Your task to perform on an android device: turn off notifications settings in the gmail app Image 0: 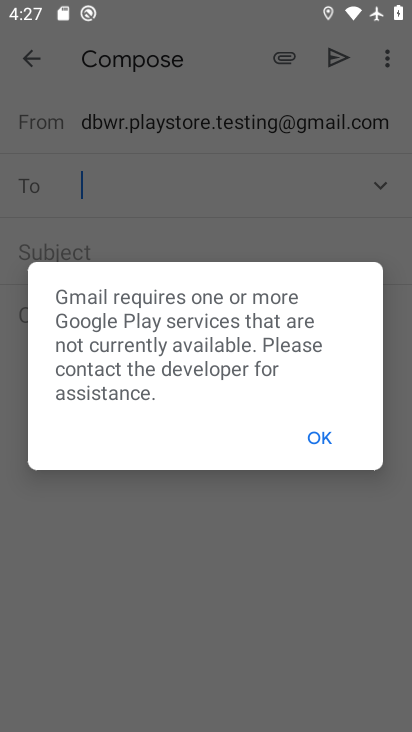
Step 0: click (318, 426)
Your task to perform on an android device: turn off notifications settings in the gmail app Image 1: 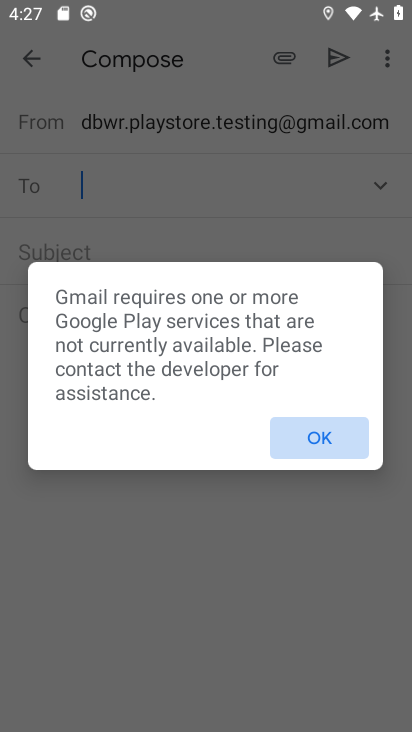
Step 1: click (317, 427)
Your task to perform on an android device: turn off notifications settings in the gmail app Image 2: 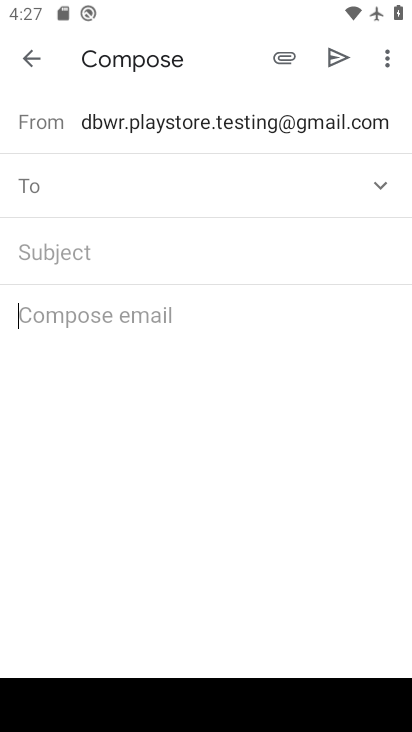
Step 2: click (23, 58)
Your task to perform on an android device: turn off notifications settings in the gmail app Image 3: 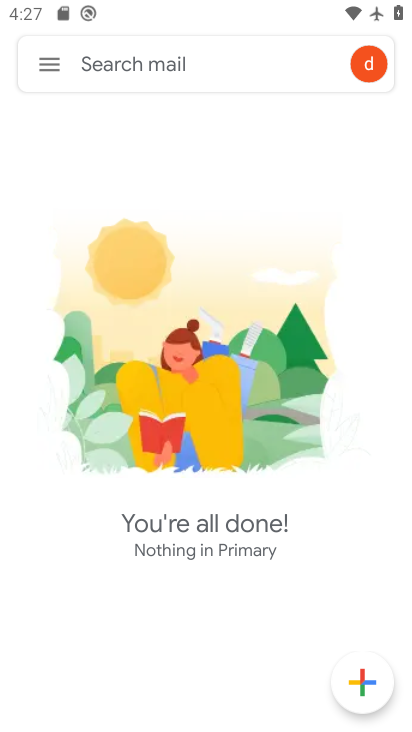
Step 3: click (46, 62)
Your task to perform on an android device: turn off notifications settings in the gmail app Image 4: 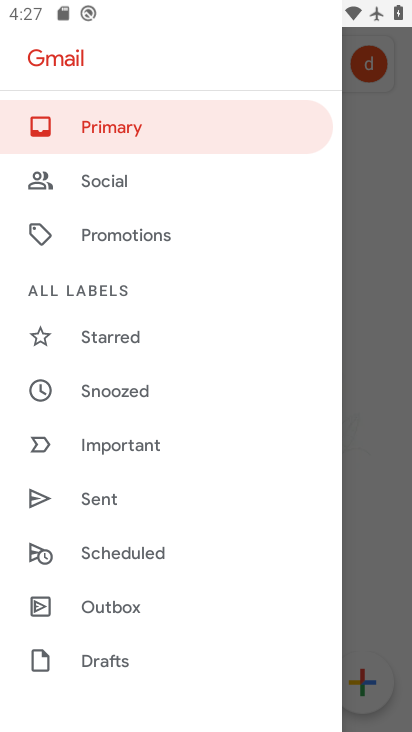
Step 4: drag from (154, 575) to (108, 236)
Your task to perform on an android device: turn off notifications settings in the gmail app Image 5: 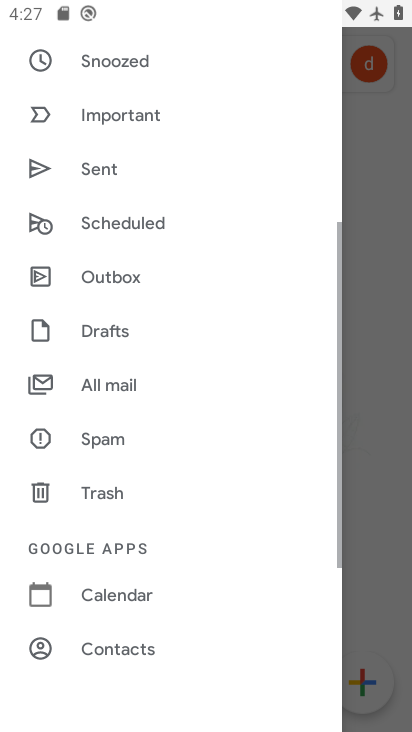
Step 5: drag from (148, 494) to (125, 231)
Your task to perform on an android device: turn off notifications settings in the gmail app Image 6: 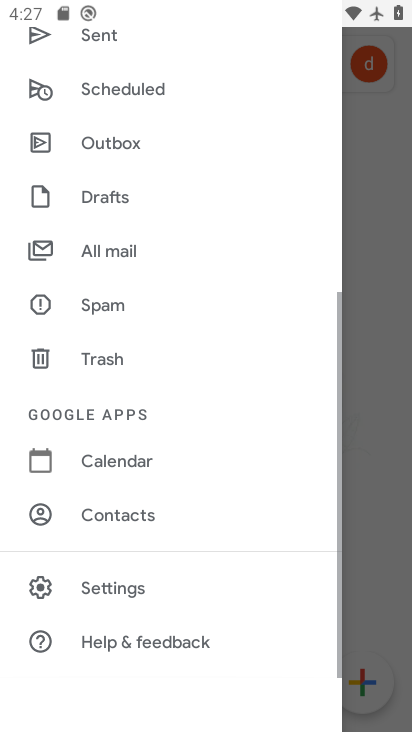
Step 6: drag from (145, 576) to (106, 169)
Your task to perform on an android device: turn off notifications settings in the gmail app Image 7: 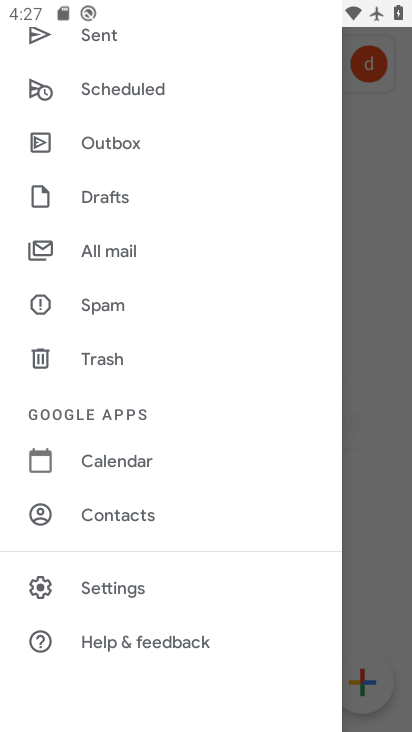
Step 7: click (95, 581)
Your task to perform on an android device: turn off notifications settings in the gmail app Image 8: 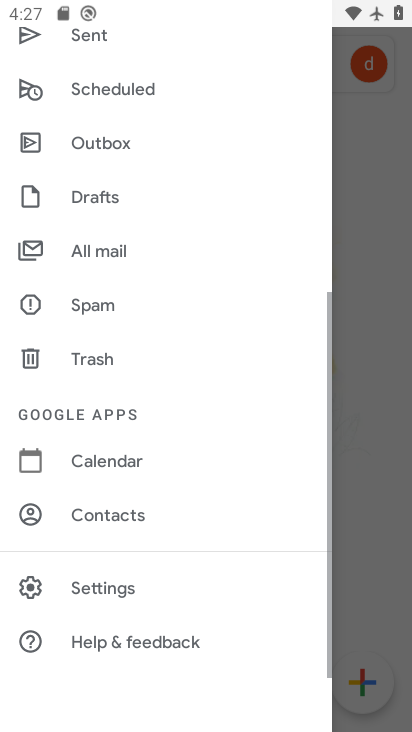
Step 8: click (95, 581)
Your task to perform on an android device: turn off notifications settings in the gmail app Image 9: 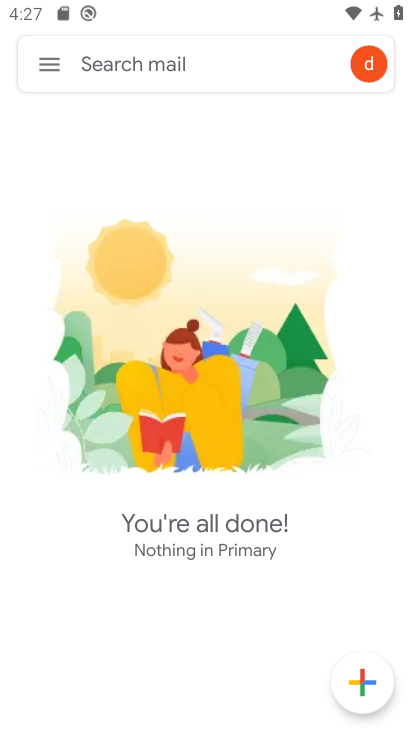
Step 9: click (97, 582)
Your task to perform on an android device: turn off notifications settings in the gmail app Image 10: 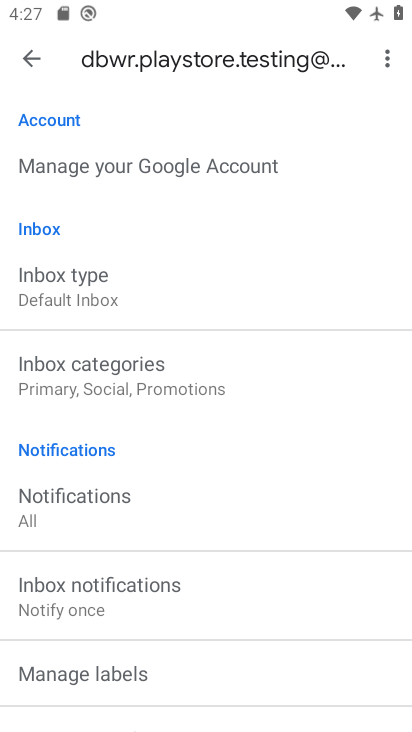
Step 10: click (44, 493)
Your task to perform on an android device: turn off notifications settings in the gmail app Image 11: 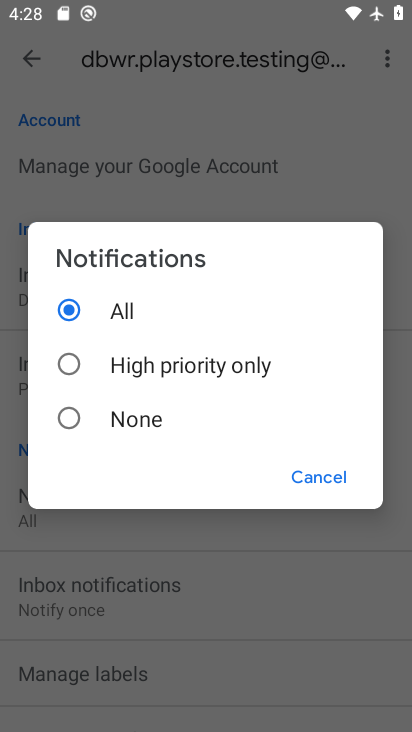
Step 11: click (310, 478)
Your task to perform on an android device: turn off notifications settings in the gmail app Image 12: 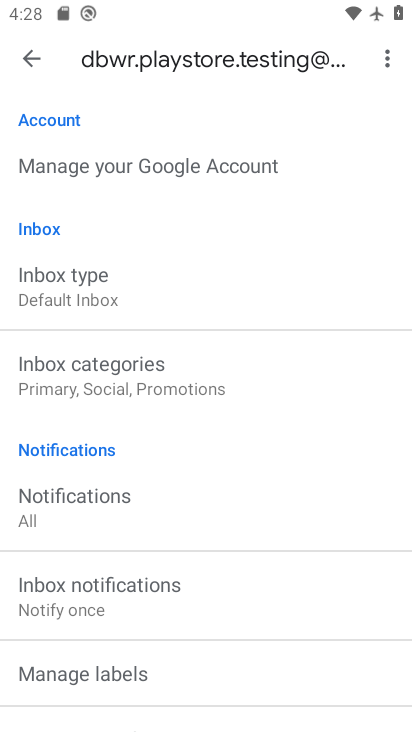
Step 12: task complete